Your task to perform on an android device: Go to CNN.com Image 0: 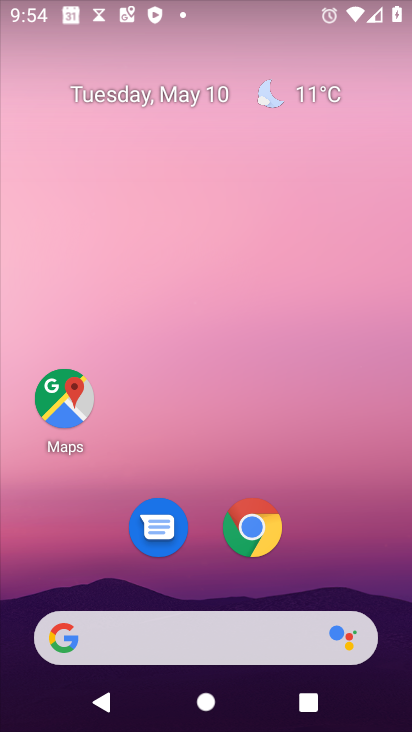
Step 0: click (267, 510)
Your task to perform on an android device: Go to CNN.com Image 1: 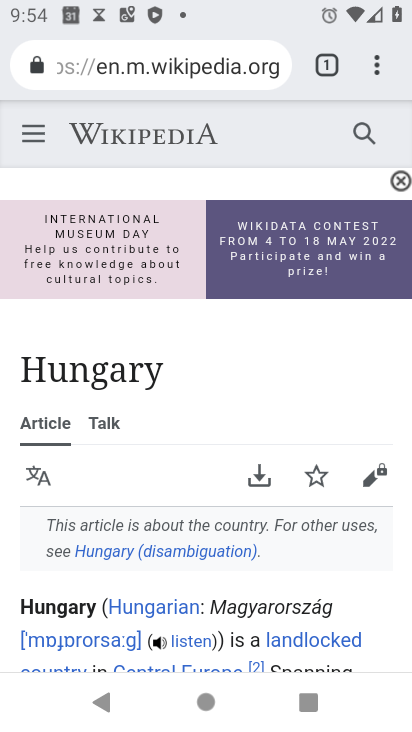
Step 1: click (206, 61)
Your task to perform on an android device: Go to CNN.com Image 2: 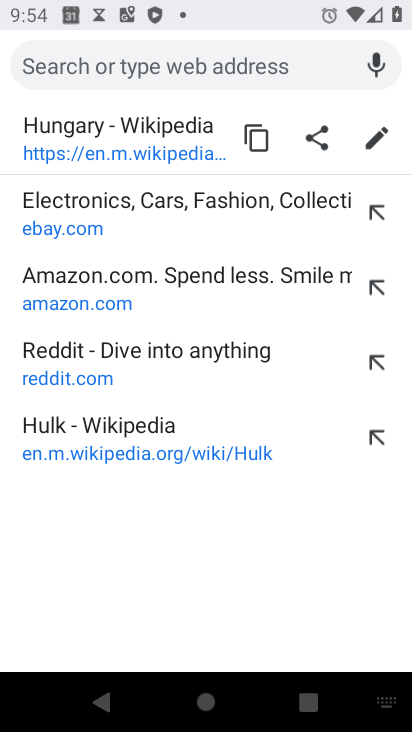
Step 2: type "cnn.com"
Your task to perform on an android device: Go to CNN.com Image 3: 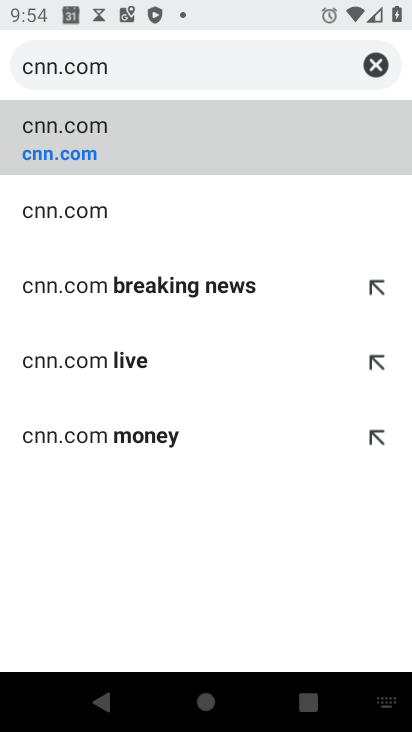
Step 3: click (150, 155)
Your task to perform on an android device: Go to CNN.com Image 4: 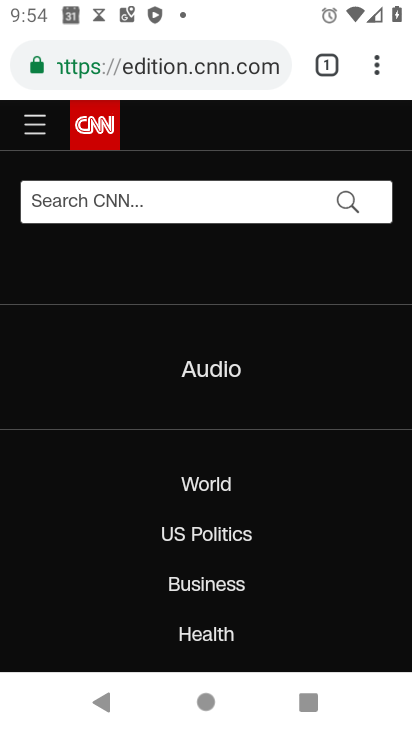
Step 4: task complete